Your task to perform on an android device: Go to wifi settings Image 0: 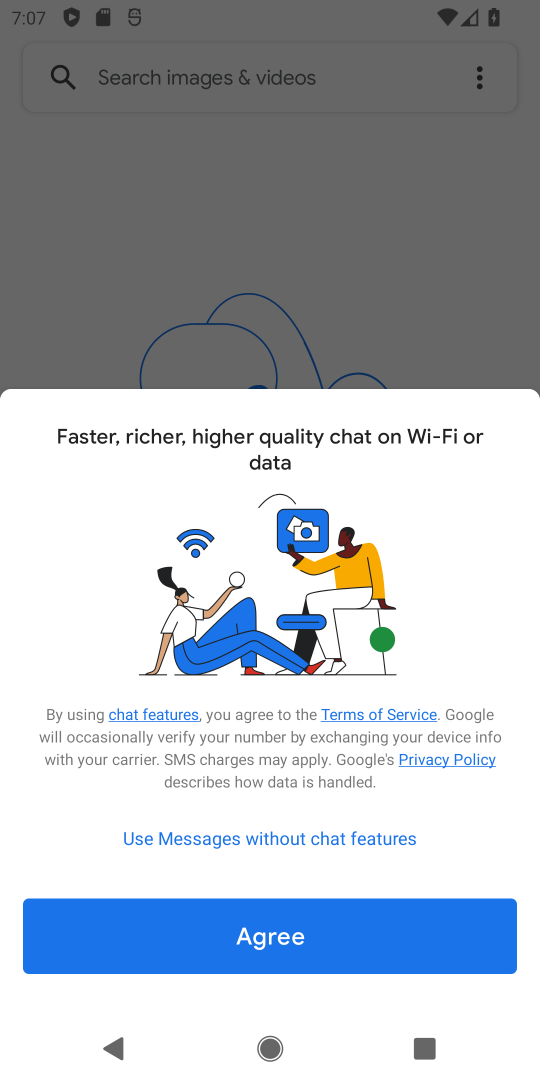
Step 0: press back button
Your task to perform on an android device: Go to wifi settings Image 1: 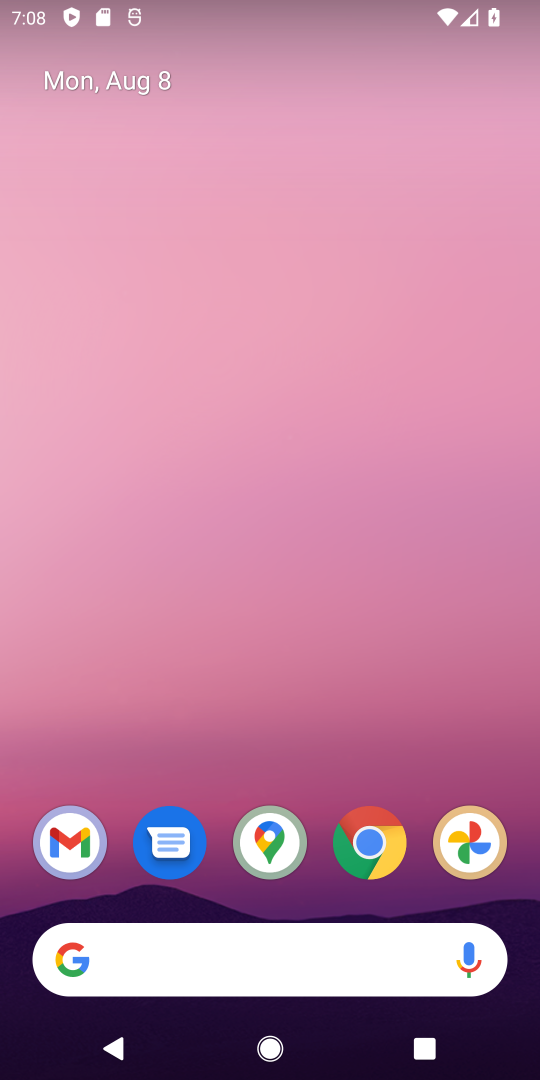
Step 1: drag from (123, 345) to (81, 0)
Your task to perform on an android device: Go to wifi settings Image 2: 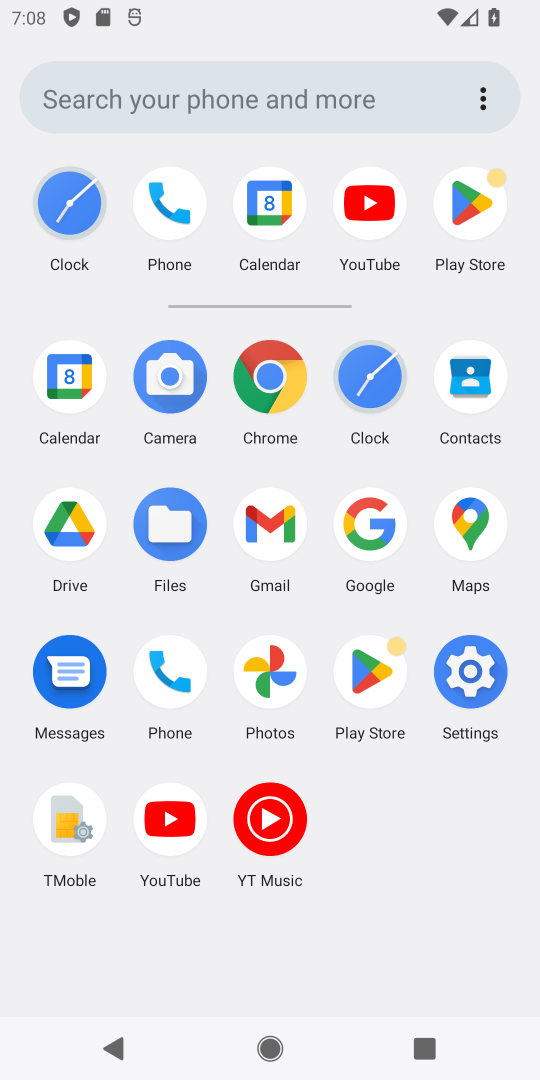
Step 2: click (454, 687)
Your task to perform on an android device: Go to wifi settings Image 3: 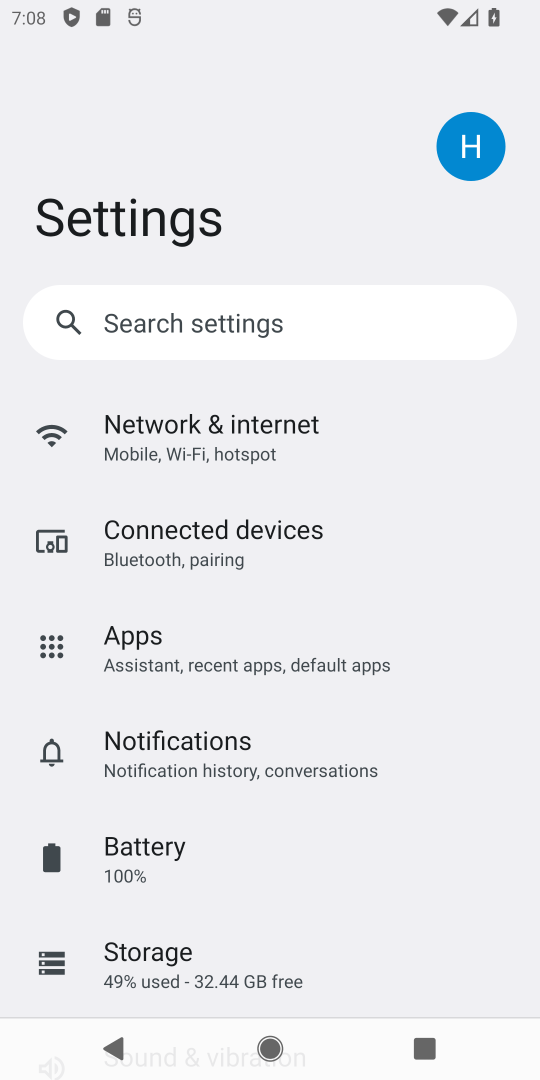
Step 3: click (267, 436)
Your task to perform on an android device: Go to wifi settings Image 4: 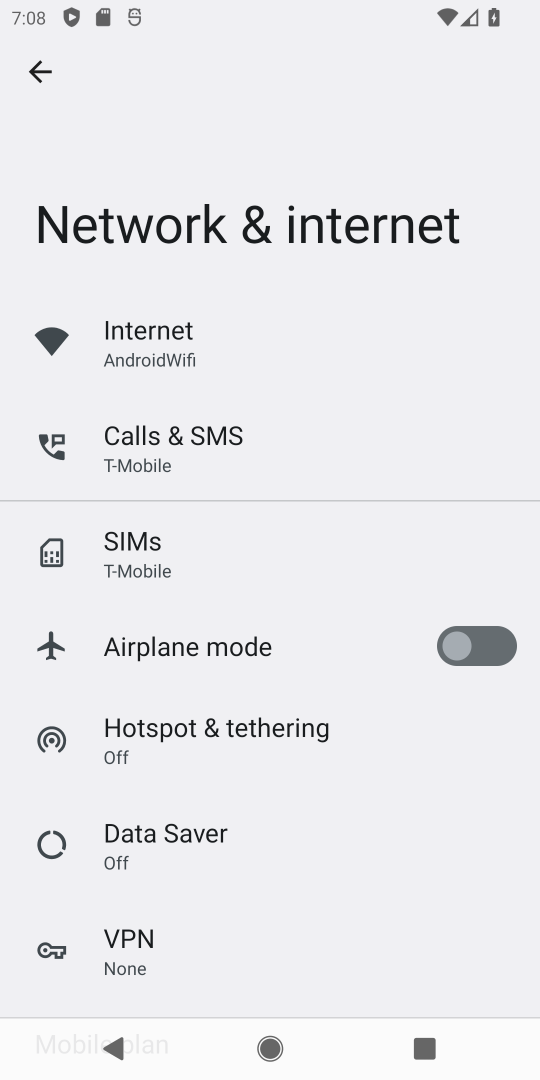
Step 4: click (155, 336)
Your task to perform on an android device: Go to wifi settings Image 5: 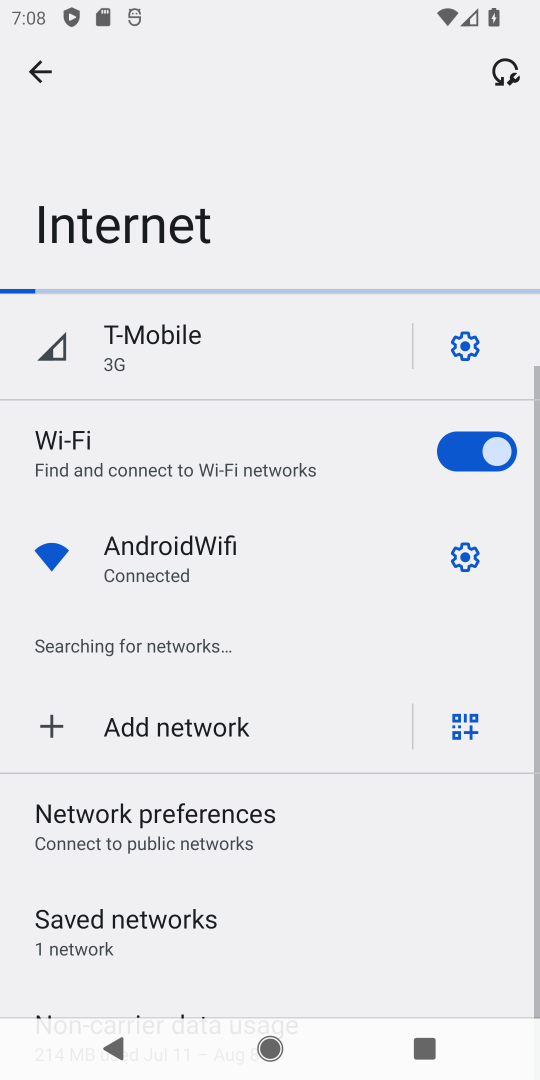
Step 5: click (131, 358)
Your task to perform on an android device: Go to wifi settings Image 6: 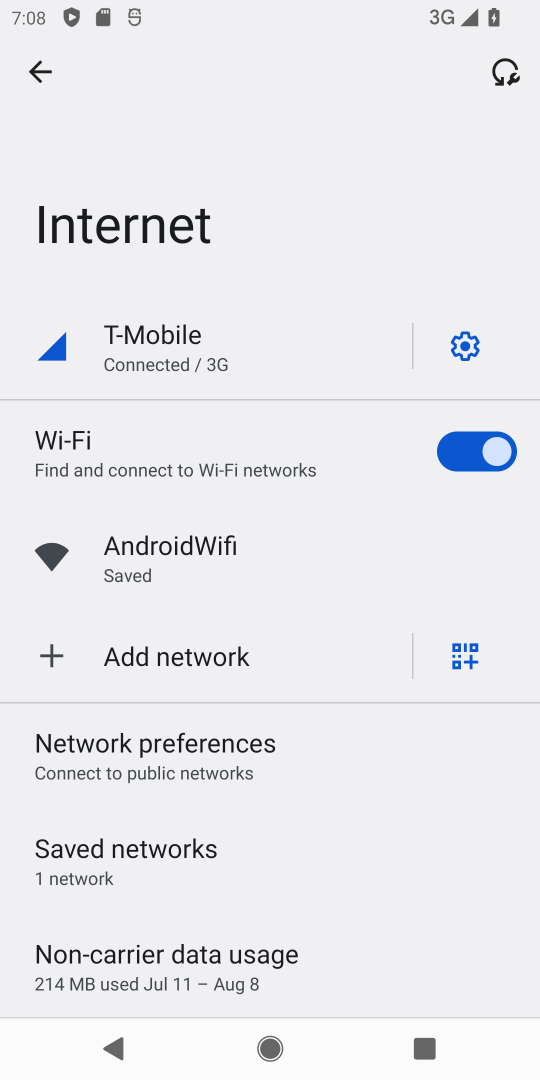
Step 6: task complete